Your task to perform on an android device: change the upload size in google photos Image 0: 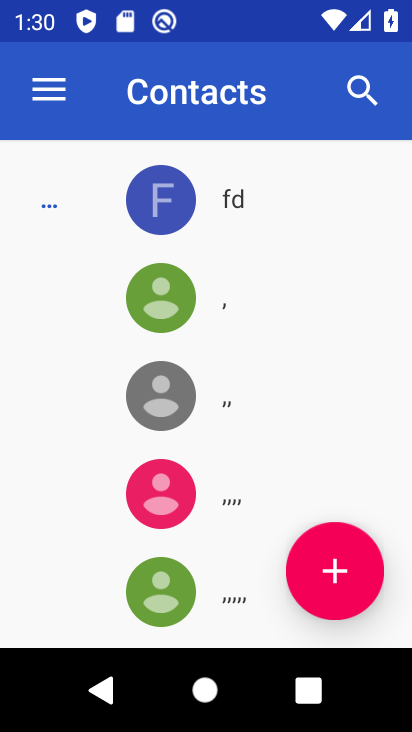
Step 0: press home button
Your task to perform on an android device: change the upload size in google photos Image 1: 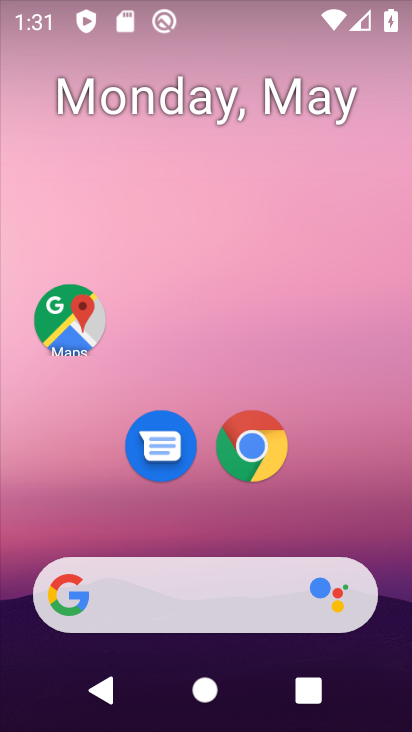
Step 1: drag from (149, 580) to (137, 496)
Your task to perform on an android device: change the upload size in google photos Image 2: 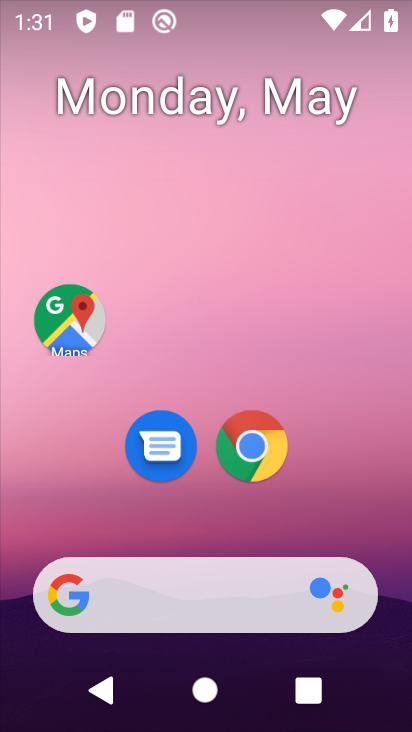
Step 2: drag from (189, 597) to (223, 147)
Your task to perform on an android device: change the upload size in google photos Image 3: 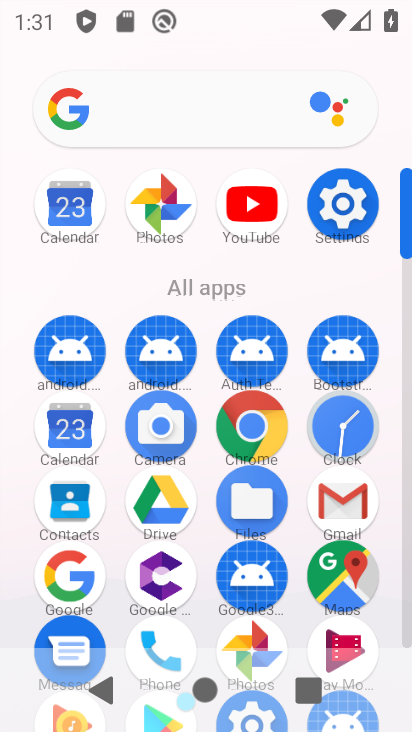
Step 3: drag from (252, 589) to (250, 336)
Your task to perform on an android device: change the upload size in google photos Image 4: 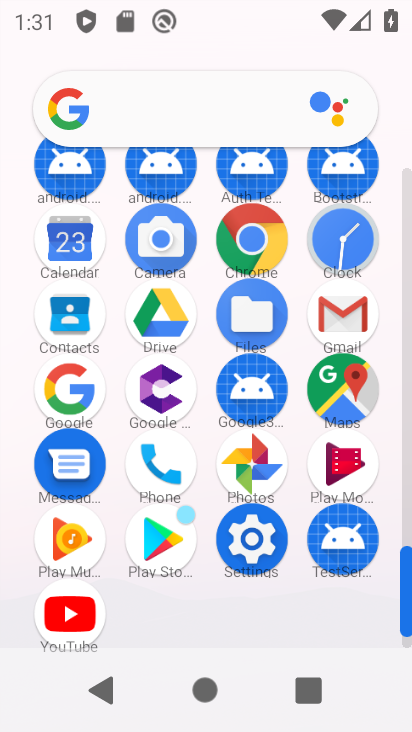
Step 4: click (240, 474)
Your task to perform on an android device: change the upload size in google photos Image 5: 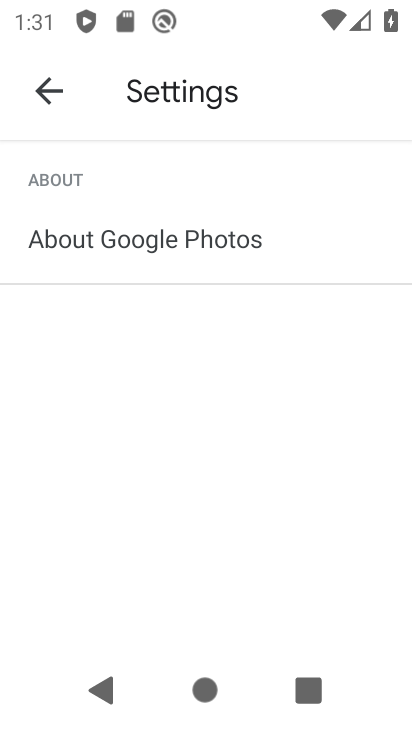
Step 5: click (44, 83)
Your task to perform on an android device: change the upload size in google photos Image 6: 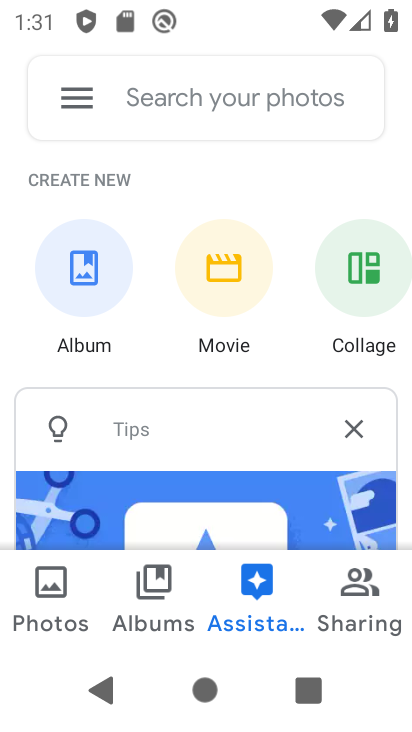
Step 6: click (70, 104)
Your task to perform on an android device: change the upload size in google photos Image 7: 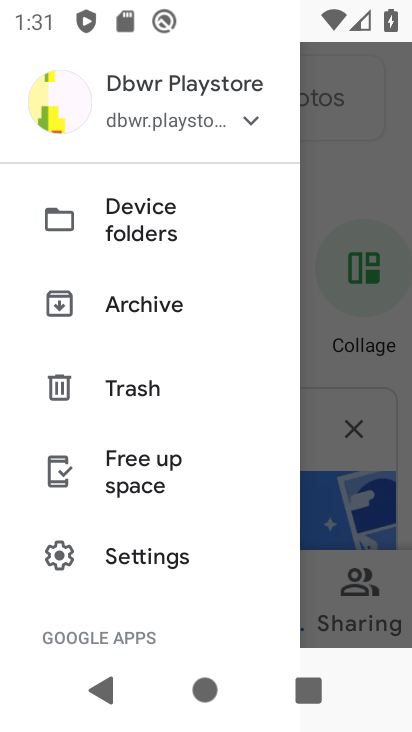
Step 7: click (168, 549)
Your task to perform on an android device: change the upload size in google photos Image 8: 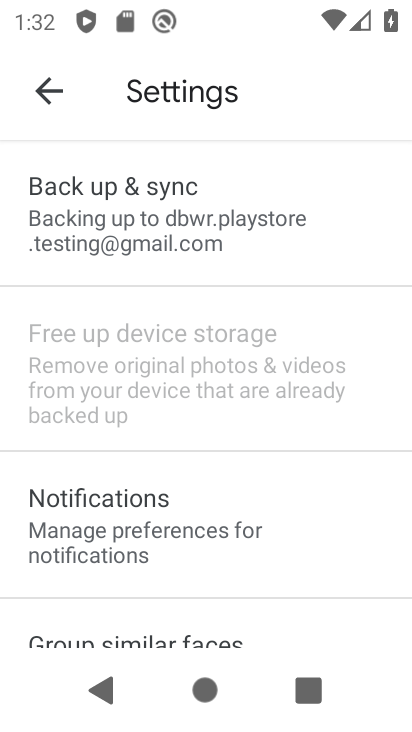
Step 8: click (182, 236)
Your task to perform on an android device: change the upload size in google photos Image 9: 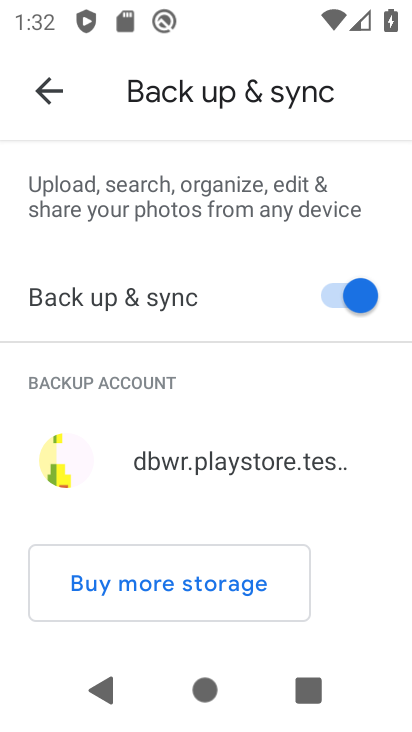
Step 9: drag from (213, 458) to (218, 149)
Your task to perform on an android device: change the upload size in google photos Image 10: 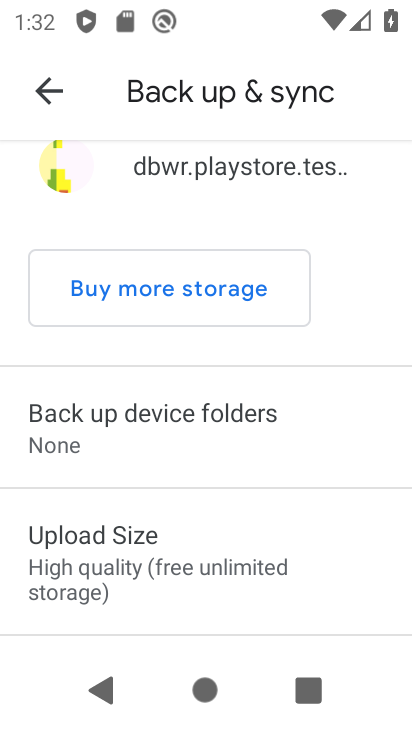
Step 10: click (171, 533)
Your task to perform on an android device: change the upload size in google photos Image 11: 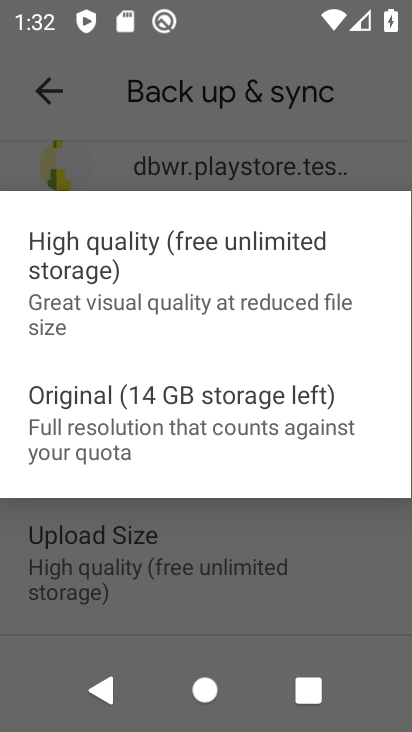
Step 11: click (143, 449)
Your task to perform on an android device: change the upload size in google photos Image 12: 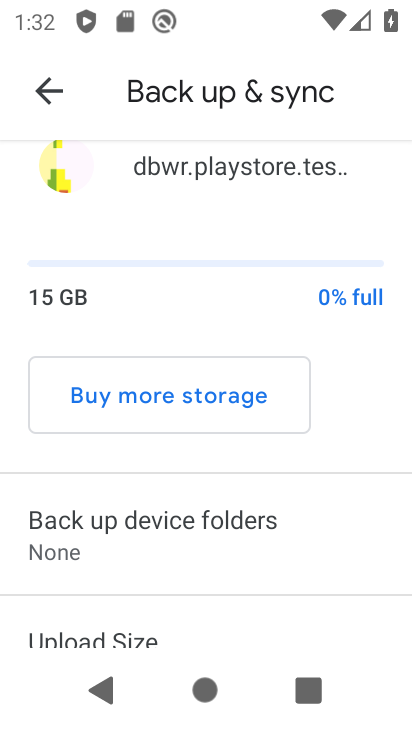
Step 12: task complete